Your task to perform on an android device: allow notifications from all sites in the chrome app Image 0: 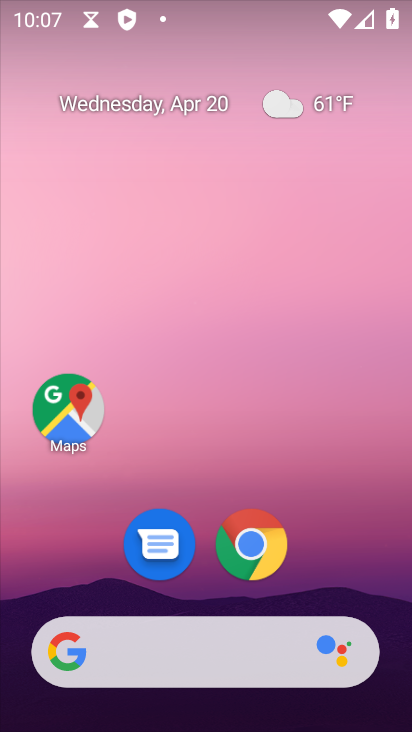
Step 0: drag from (218, 645) to (301, 66)
Your task to perform on an android device: allow notifications from all sites in the chrome app Image 1: 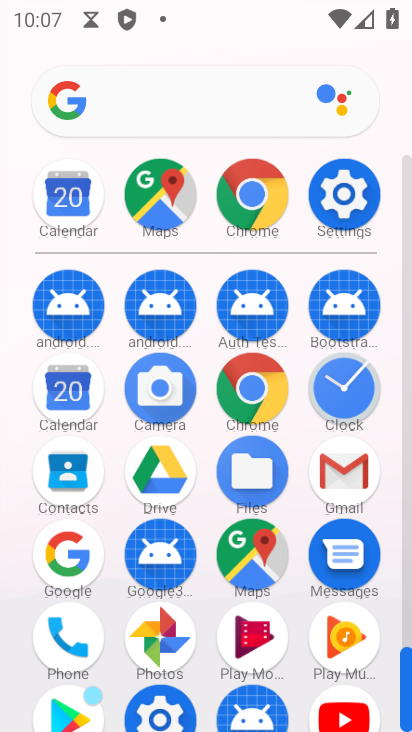
Step 1: click (251, 208)
Your task to perform on an android device: allow notifications from all sites in the chrome app Image 2: 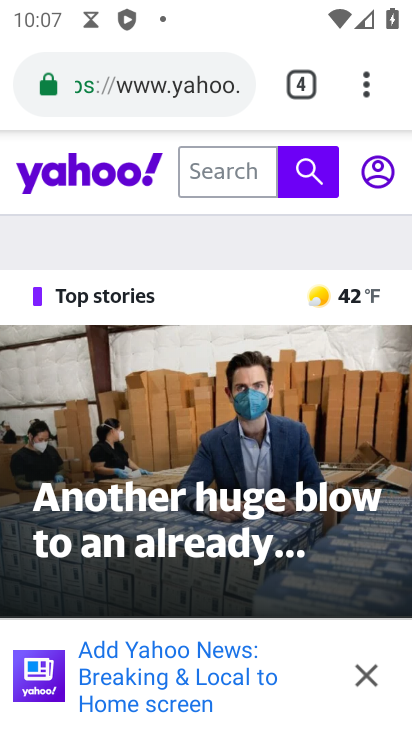
Step 2: click (343, 105)
Your task to perform on an android device: allow notifications from all sites in the chrome app Image 3: 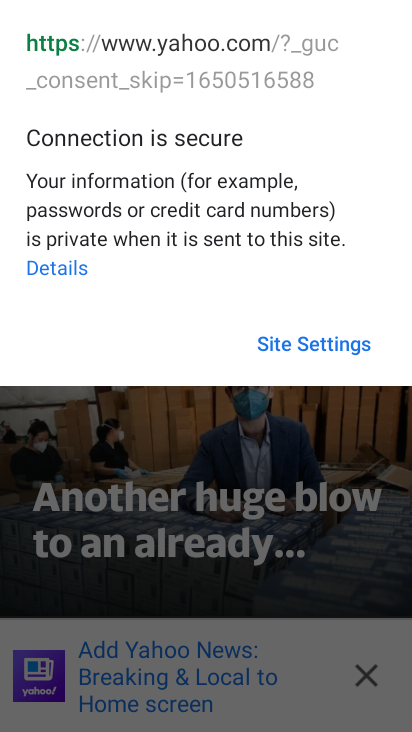
Step 3: press back button
Your task to perform on an android device: allow notifications from all sites in the chrome app Image 4: 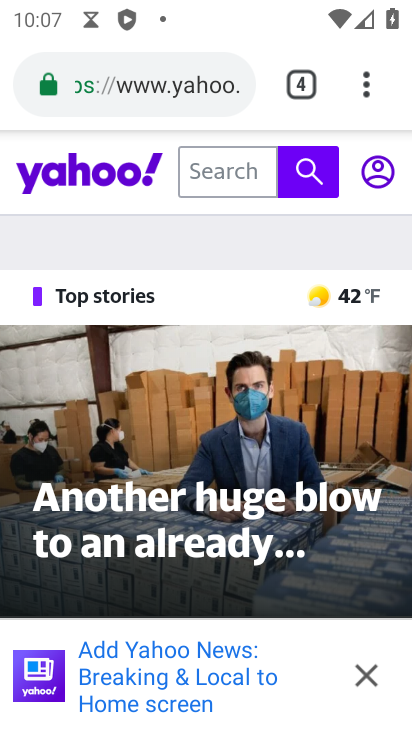
Step 4: click (362, 106)
Your task to perform on an android device: allow notifications from all sites in the chrome app Image 5: 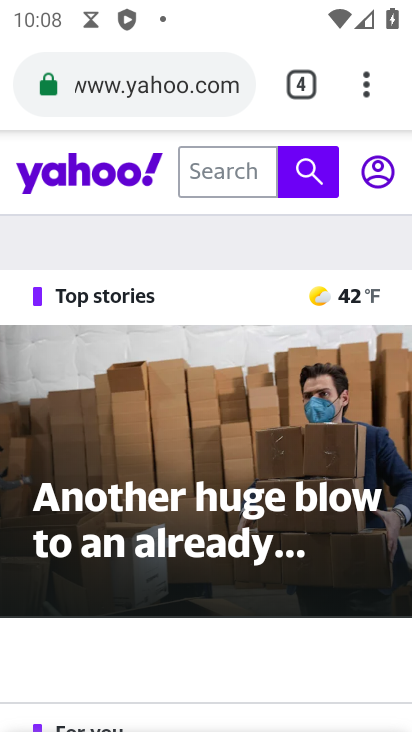
Step 5: click (360, 95)
Your task to perform on an android device: allow notifications from all sites in the chrome app Image 6: 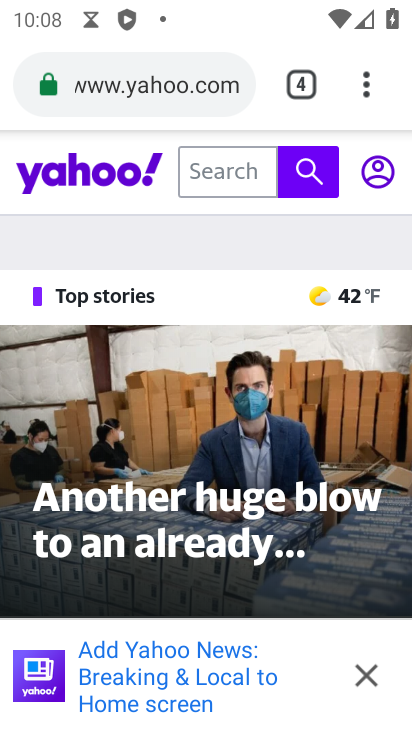
Step 6: click (365, 102)
Your task to perform on an android device: allow notifications from all sites in the chrome app Image 7: 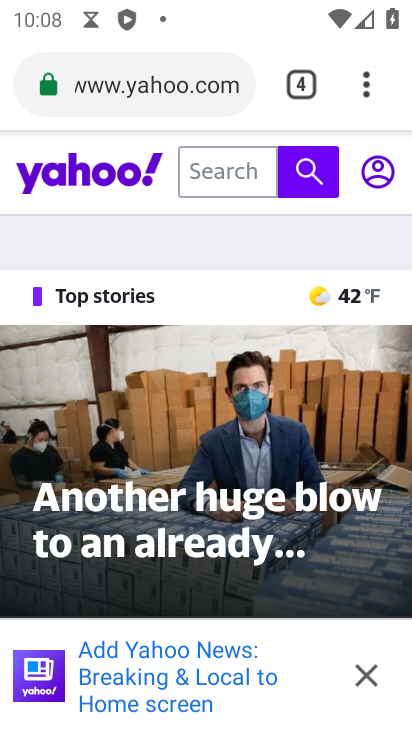
Step 7: click (370, 106)
Your task to perform on an android device: allow notifications from all sites in the chrome app Image 8: 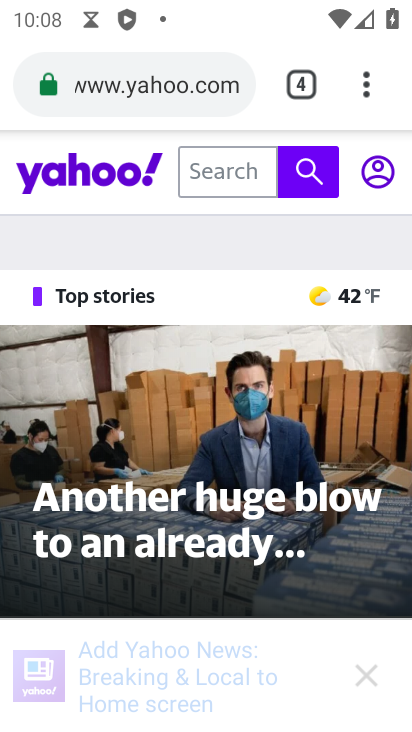
Step 8: click (364, 90)
Your task to perform on an android device: allow notifications from all sites in the chrome app Image 9: 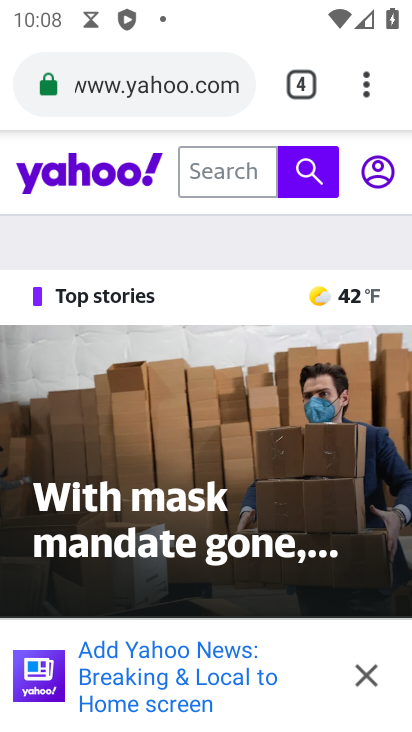
Step 9: click (352, 84)
Your task to perform on an android device: allow notifications from all sites in the chrome app Image 10: 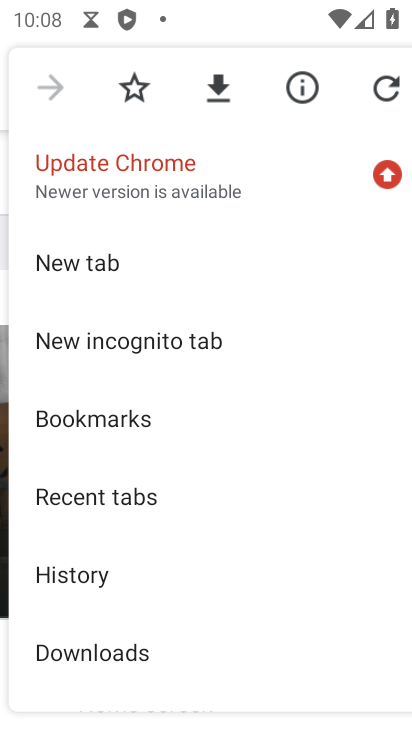
Step 10: drag from (181, 613) to (333, 215)
Your task to perform on an android device: allow notifications from all sites in the chrome app Image 11: 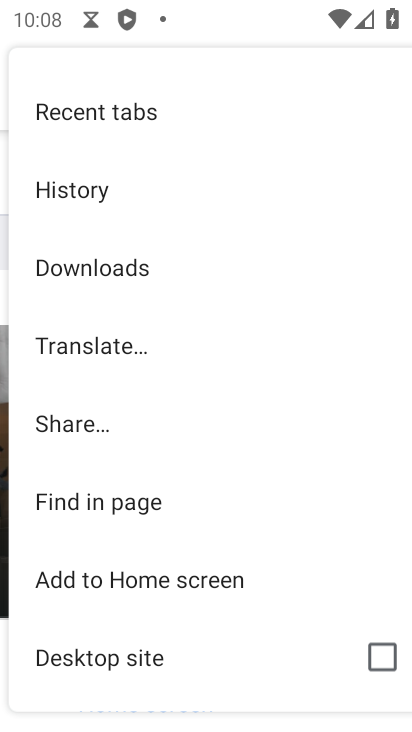
Step 11: drag from (176, 631) to (268, 191)
Your task to perform on an android device: allow notifications from all sites in the chrome app Image 12: 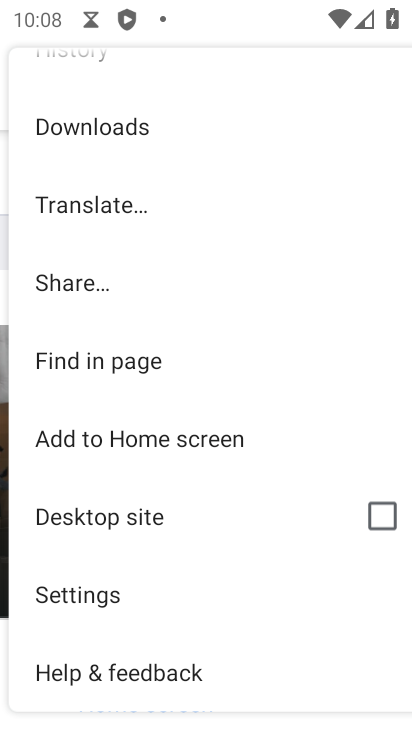
Step 12: click (94, 598)
Your task to perform on an android device: allow notifications from all sites in the chrome app Image 13: 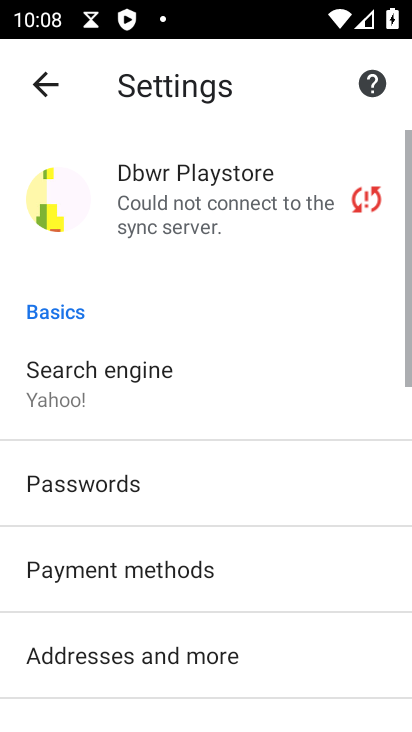
Step 13: drag from (156, 629) to (292, 156)
Your task to perform on an android device: allow notifications from all sites in the chrome app Image 14: 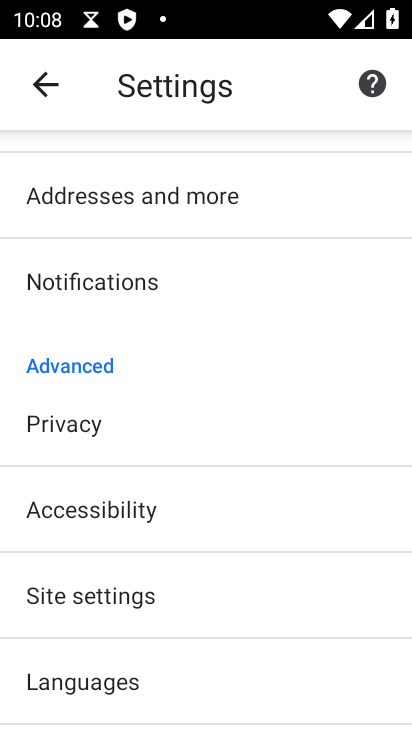
Step 14: click (138, 603)
Your task to perform on an android device: allow notifications from all sites in the chrome app Image 15: 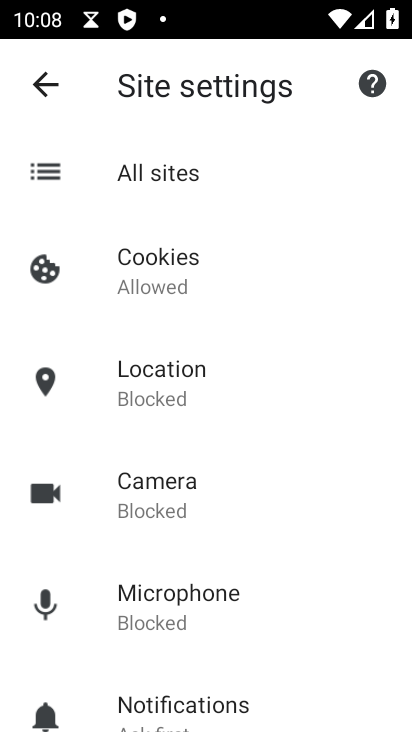
Step 15: drag from (265, 615) to (327, 287)
Your task to perform on an android device: allow notifications from all sites in the chrome app Image 16: 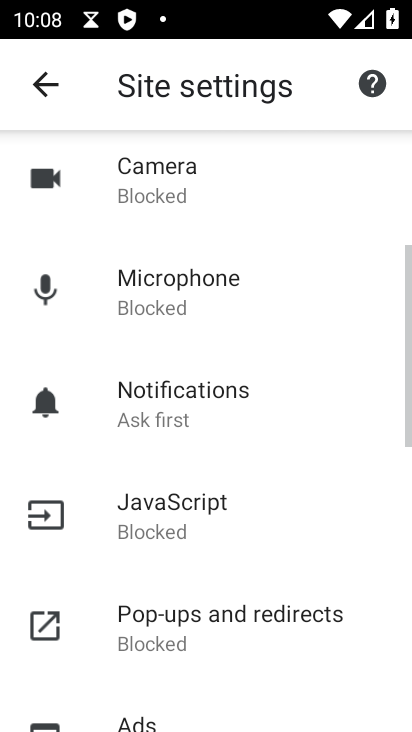
Step 16: click (187, 414)
Your task to perform on an android device: allow notifications from all sites in the chrome app Image 17: 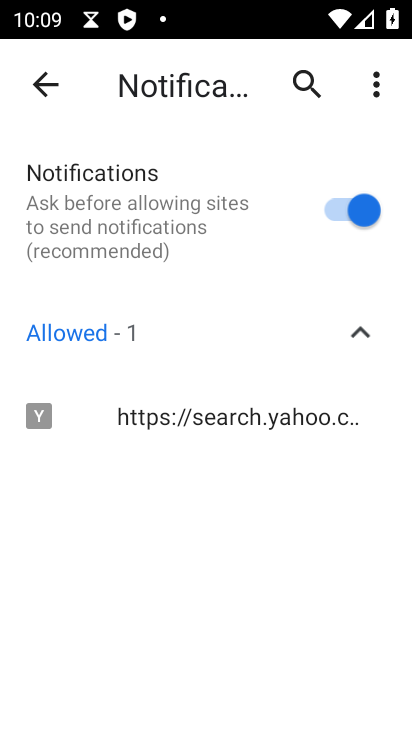
Step 17: click (340, 212)
Your task to perform on an android device: allow notifications from all sites in the chrome app Image 18: 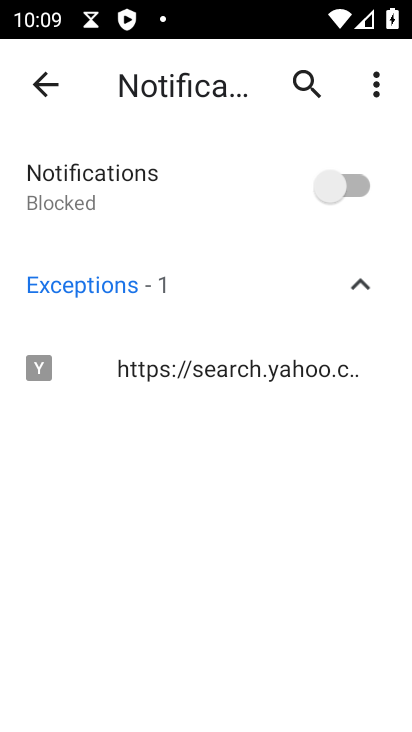
Step 18: click (364, 180)
Your task to perform on an android device: allow notifications from all sites in the chrome app Image 19: 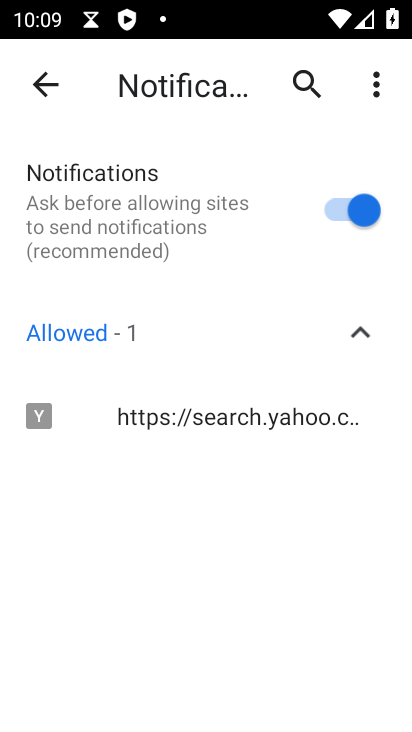
Step 19: task complete